Your task to perform on an android device: toggle improve location accuracy Image 0: 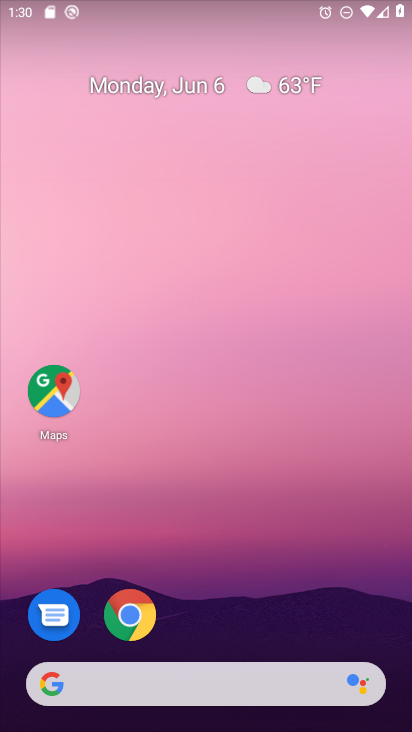
Step 0: drag from (309, 609) to (323, 30)
Your task to perform on an android device: toggle improve location accuracy Image 1: 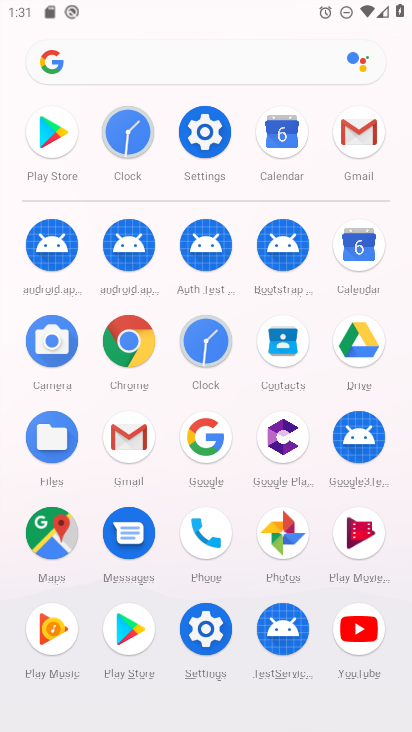
Step 1: click (206, 639)
Your task to perform on an android device: toggle improve location accuracy Image 2: 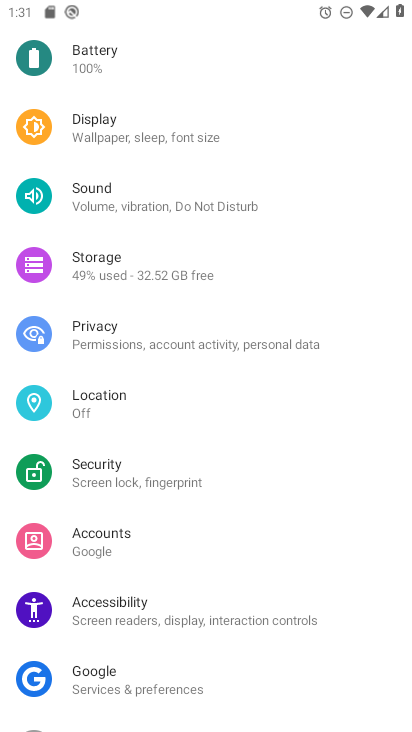
Step 2: click (90, 411)
Your task to perform on an android device: toggle improve location accuracy Image 3: 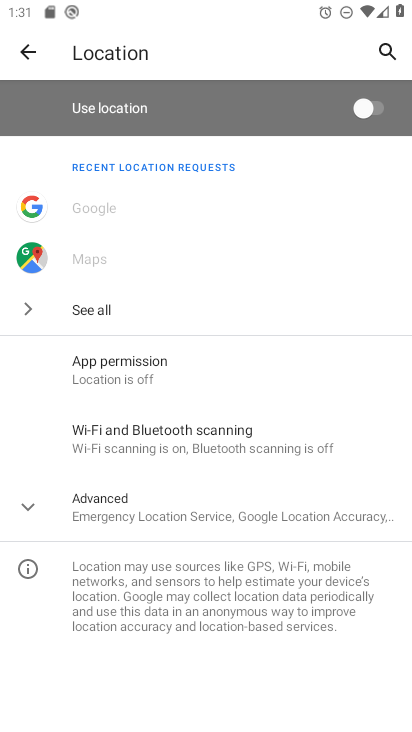
Step 3: click (129, 518)
Your task to perform on an android device: toggle improve location accuracy Image 4: 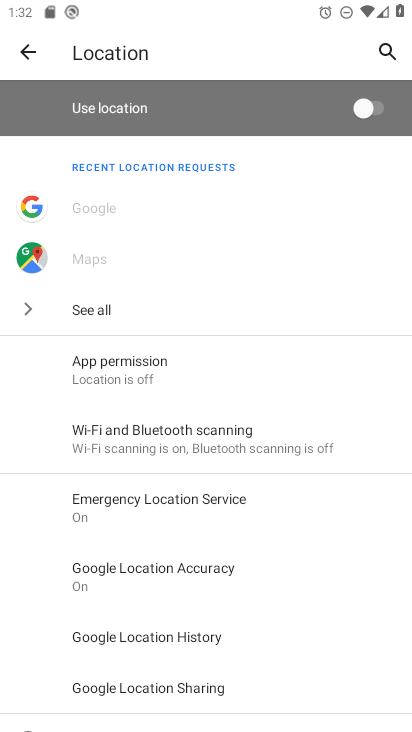
Step 4: click (179, 578)
Your task to perform on an android device: toggle improve location accuracy Image 5: 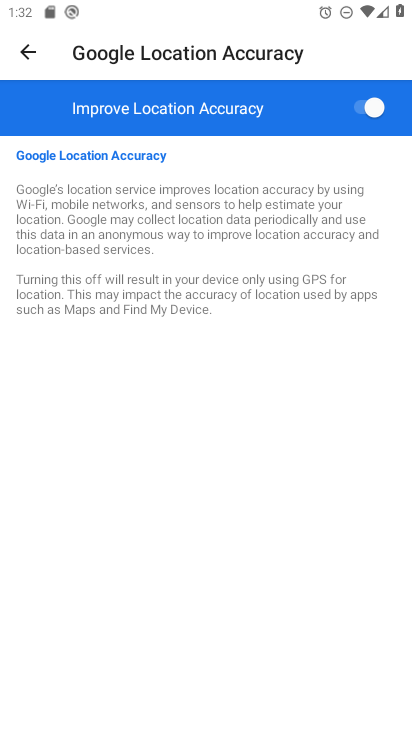
Step 5: click (369, 104)
Your task to perform on an android device: toggle improve location accuracy Image 6: 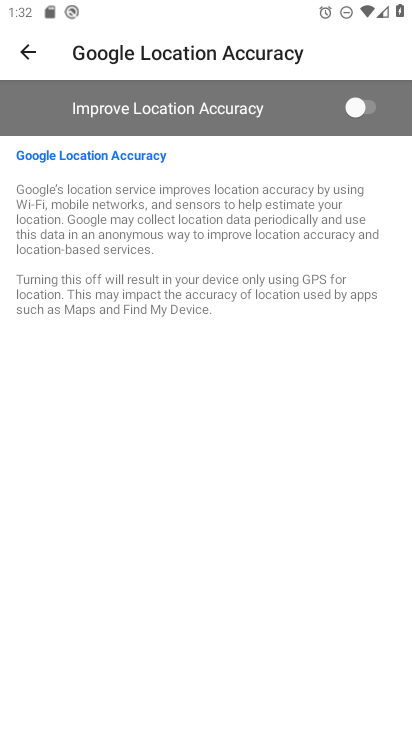
Step 6: task complete